Your task to perform on an android device: turn on the 24-hour format for clock Image 0: 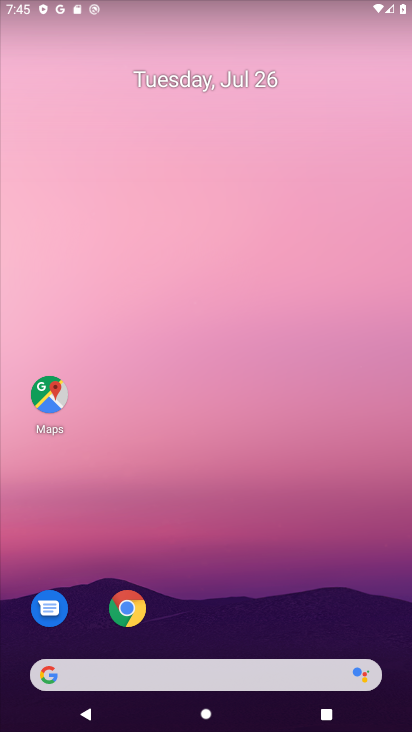
Step 0: drag from (246, 664) to (258, 56)
Your task to perform on an android device: turn on the 24-hour format for clock Image 1: 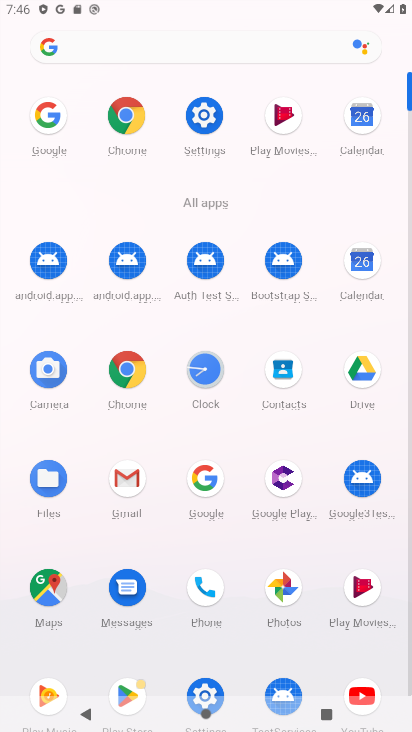
Step 1: click (213, 368)
Your task to perform on an android device: turn on the 24-hour format for clock Image 2: 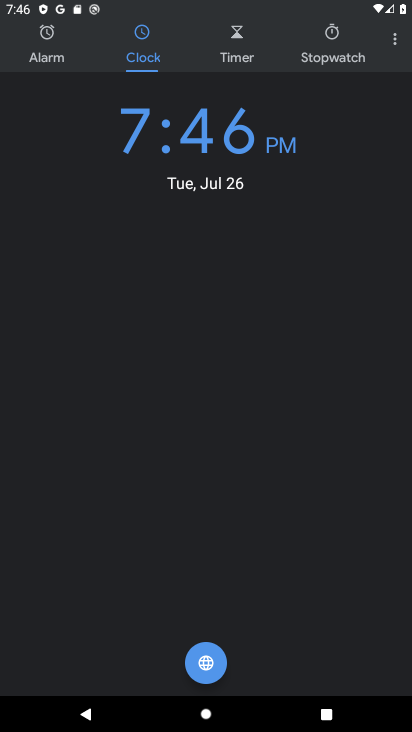
Step 2: click (397, 41)
Your task to perform on an android device: turn on the 24-hour format for clock Image 3: 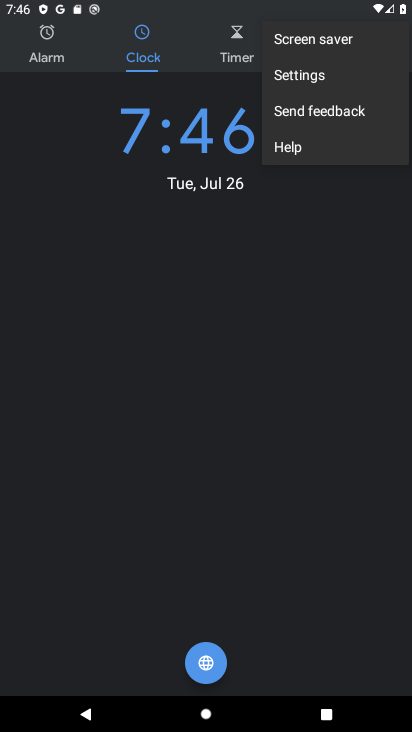
Step 3: click (299, 85)
Your task to perform on an android device: turn on the 24-hour format for clock Image 4: 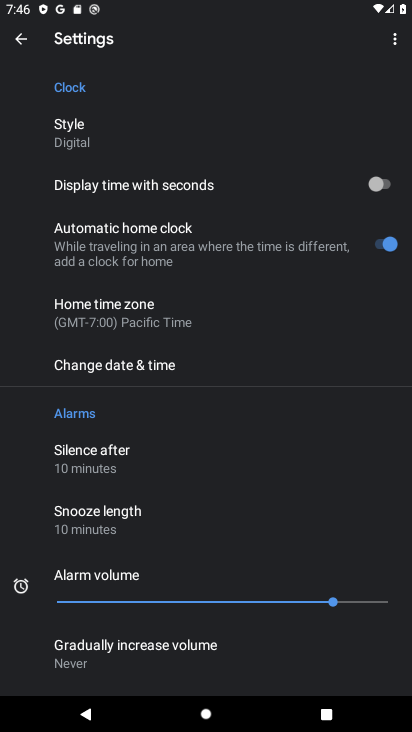
Step 4: click (152, 359)
Your task to perform on an android device: turn on the 24-hour format for clock Image 5: 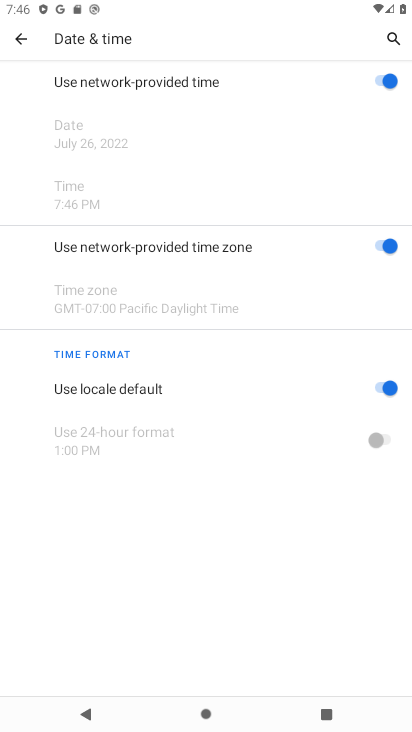
Step 5: click (385, 392)
Your task to perform on an android device: turn on the 24-hour format for clock Image 6: 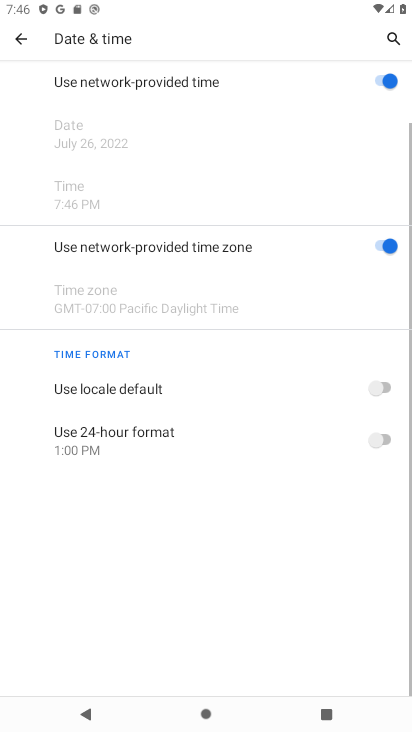
Step 6: click (389, 441)
Your task to perform on an android device: turn on the 24-hour format for clock Image 7: 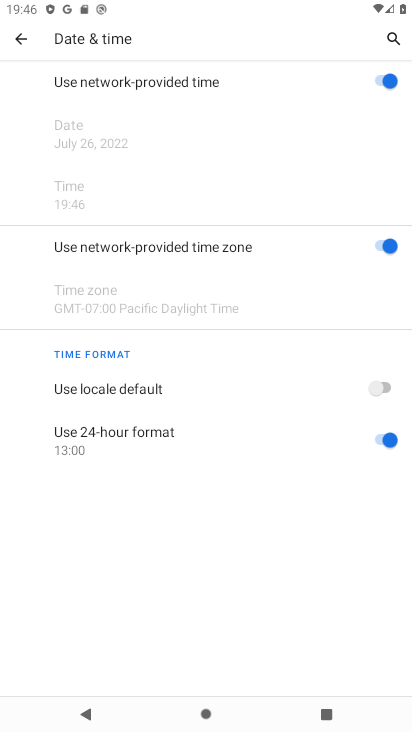
Step 7: task complete